Your task to perform on an android device: Search for Italian restaurants on Maps Image 0: 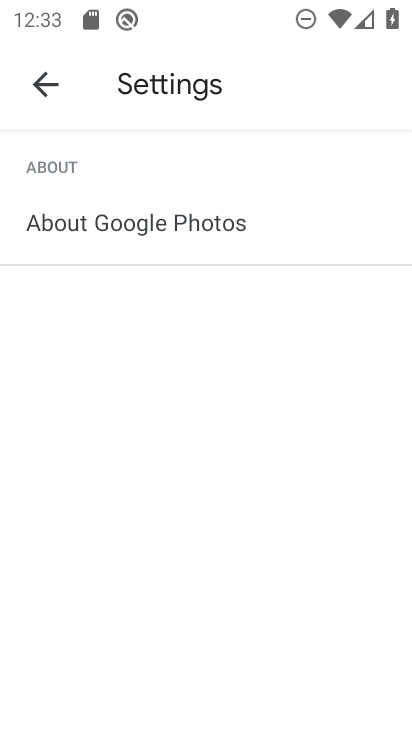
Step 0: press home button
Your task to perform on an android device: Search for Italian restaurants on Maps Image 1: 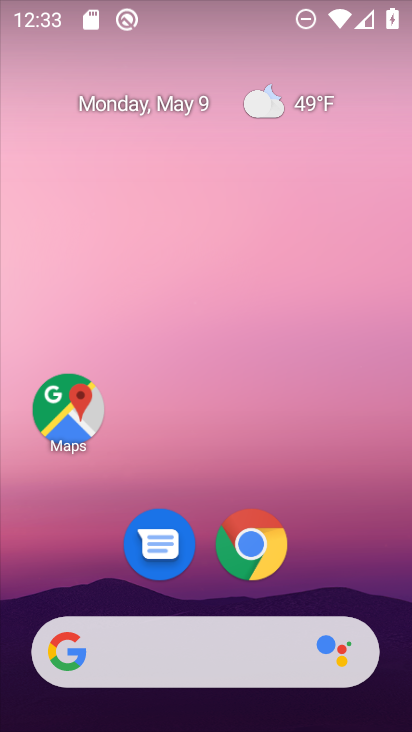
Step 1: drag from (356, 534) to (336, 140)
Your task to perform on an android device: Search for Italian restaurants on Maps Image 2: 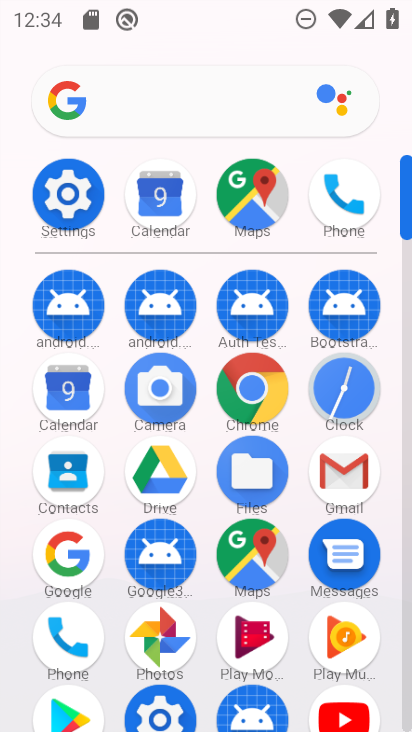
Step 2: click (236, 217)
Your task to perform on an android device: Search for Italian restaurants on Maps Image 3: 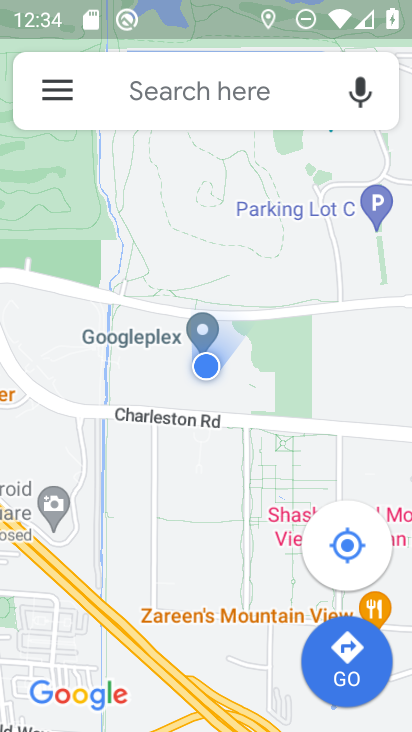
Step 3: click (227, 121)
Your task to perform on an android device: Search for Italian restaurants on Maps Image 4: 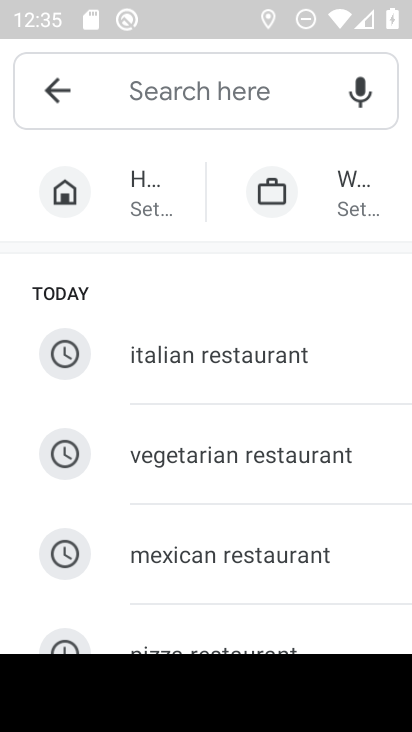
Step 4: click (201, 356)
Your task to perform on an android device: Search for Italian restaurants on Maps Image 5: 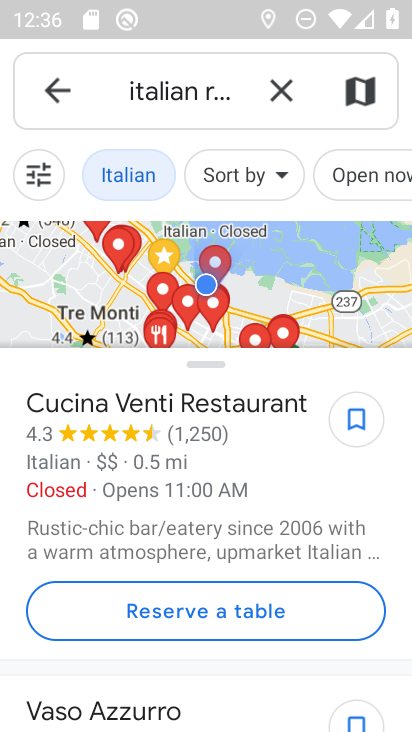
Step 5: task complete